Your task to perform on an android device: check android version Image 0: 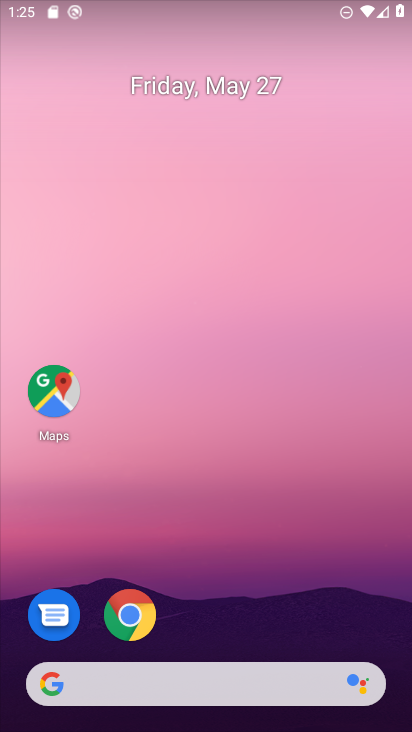
Step 0: drag from (219, 653) to (249, 134)
Your task to perform on an android device: check android version Image 1: 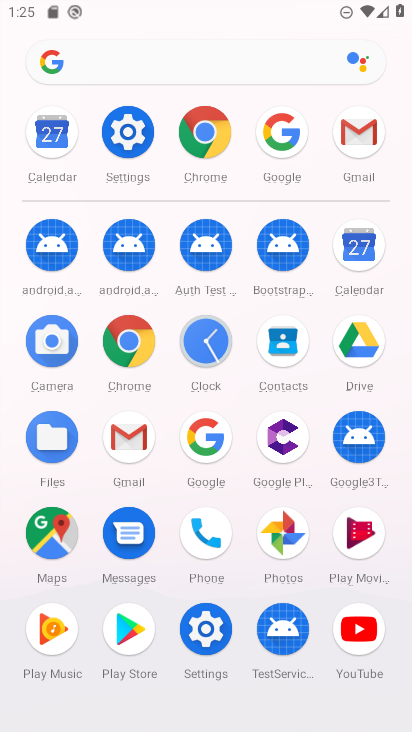
Step 1: click (213, 628)
Your task to perform on an android device: check android version Image 2: 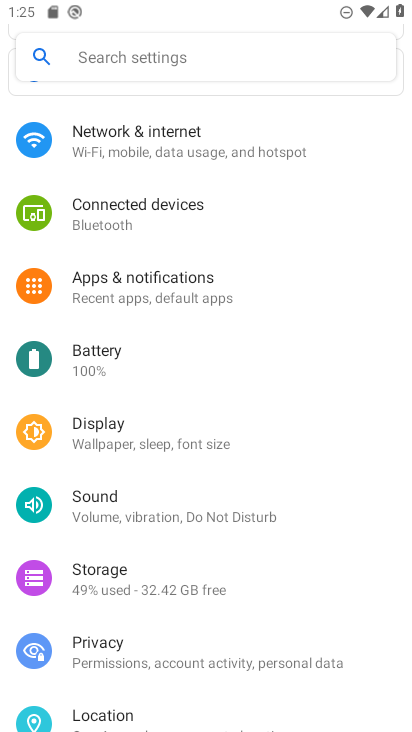
Step 2: drag from (196, 644) to (242, 199)
Your task to perform on an android device: check android version Image 3: 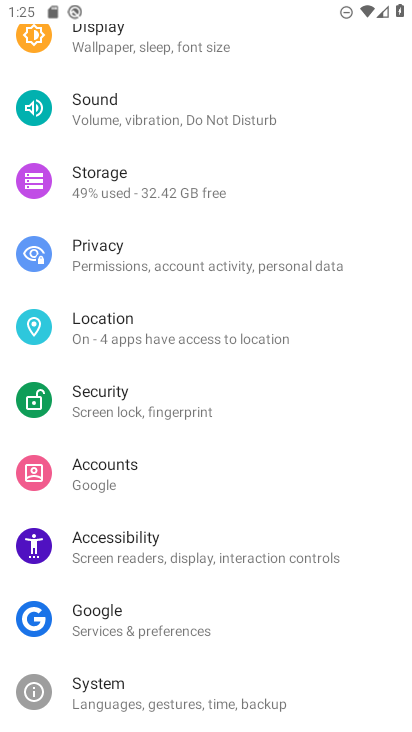
Step 3: drag from (208, 676) to (254, 283)
Your task to perform on an android device: check android version Image 4: 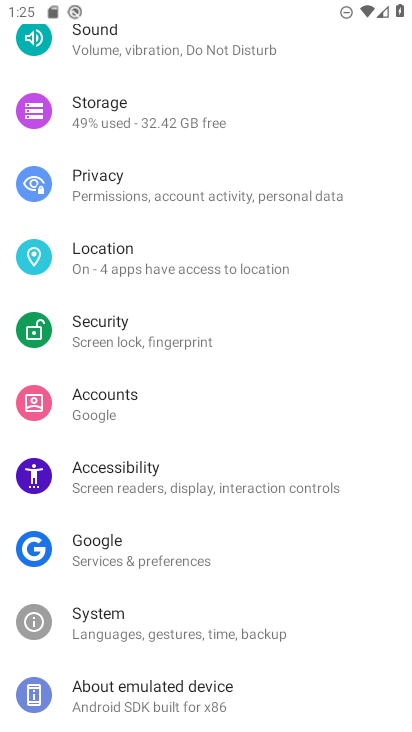
Step 4: click (212, 700)
Your task to perform on an android device: check android version Image 5: 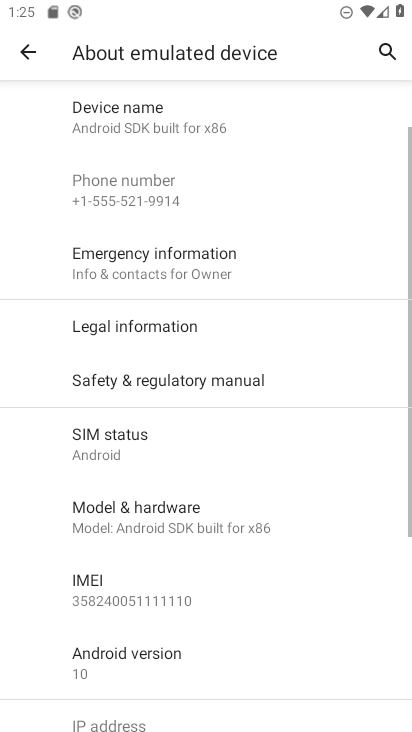
Step 5: drag from (217, 681) to (257, 499)
Your task to perform on an android device: check android version Image 6: 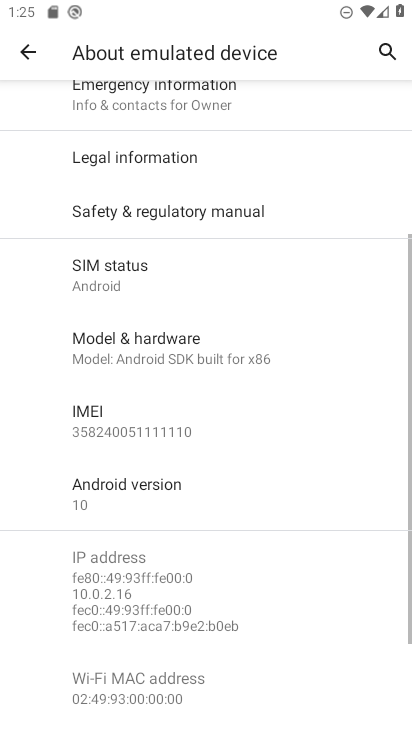
Step 6: drag from (207, 565) to (226, 482)
Your task to perform on an android device: check android version Image 7: 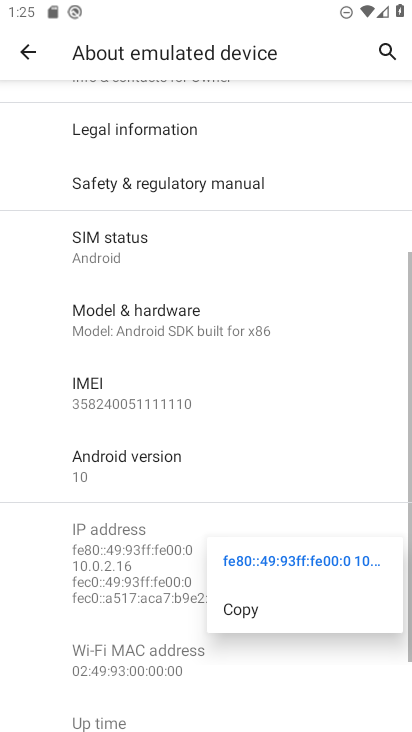
Step 7: click (164, 460)
Your task to perform on an android device: check android version Image 8: 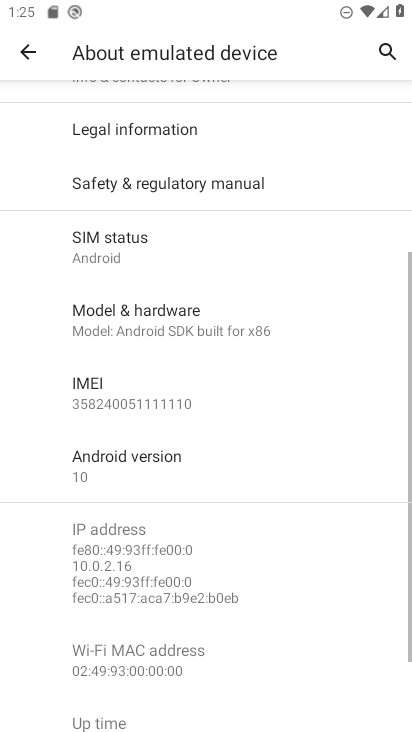
Step 8: click (164, 460)
Your task to perform on an android device: check android version Image 9: 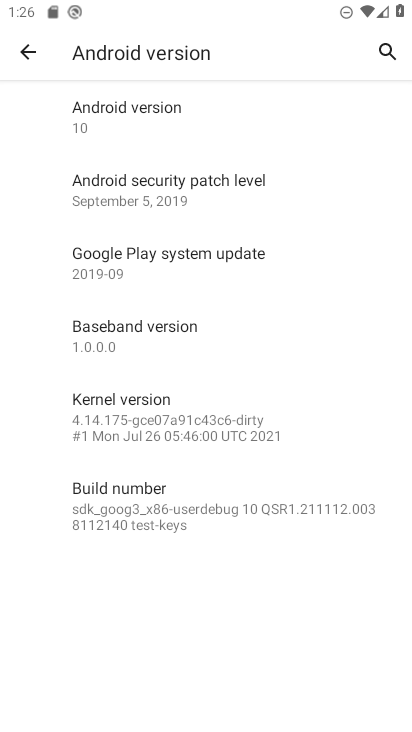
Step 9: click (187, 118)
Your task to perform on an android device: check android version Image 10: 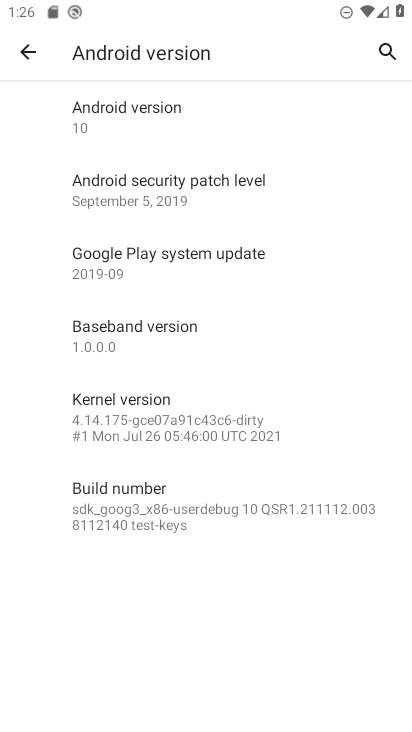
Step 10: task complete